Your task to perform on an android device: open chrome and create a bookmark for the current page Image 0: 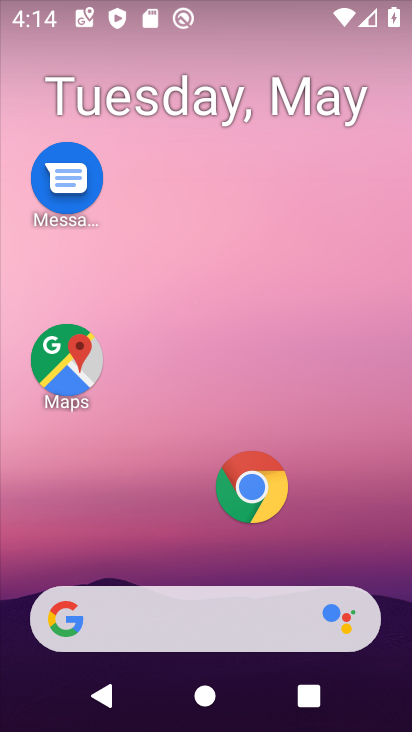
Step 0: click (268, 474)
Your task to perform on an android device: open chrome and create a bookmark for the current page Image 1: 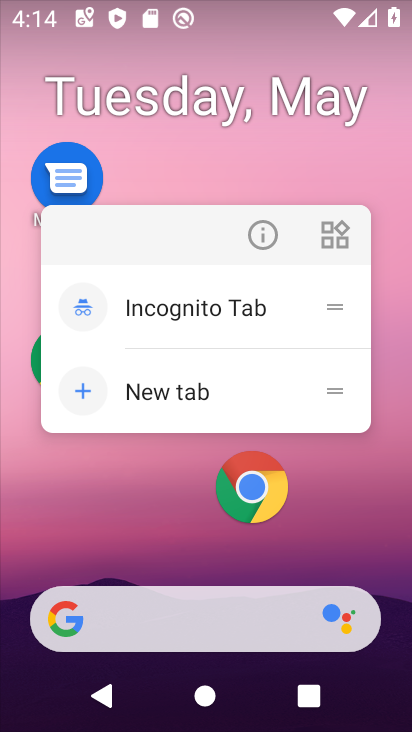
Step 1: click (261, 490)
Your task to perform on an android device: open chrome and create a bookmark for the current page Image 2: 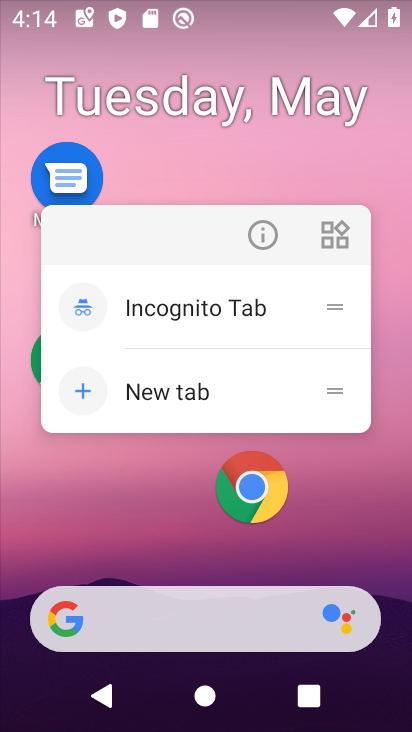
Step 2: click (250, 502)
Your task to perform on an android device: open chrome and create a bookmark for the current page Image 3: 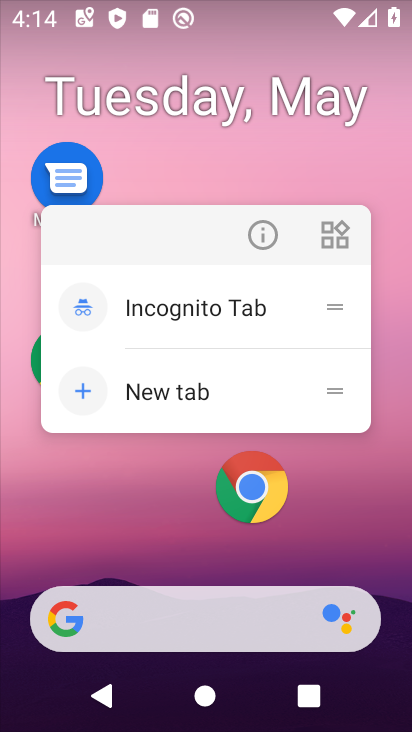
Step 3: click (247, 520)
Your task to perform on an android device: open chrome and create a bookmark for the current page Image 4: 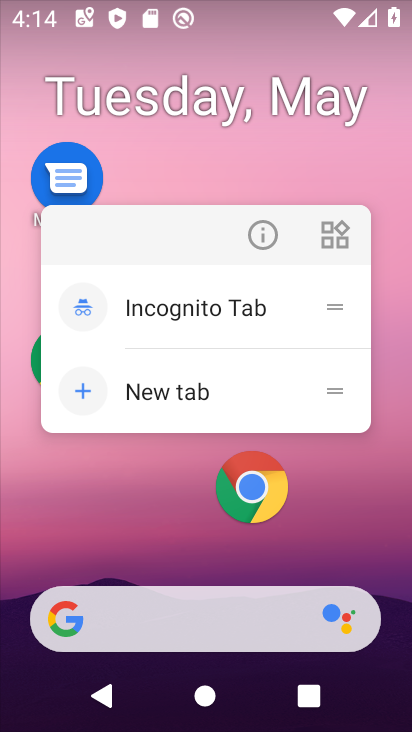
Step 4: click (255, 489)
Your task to perform on an android device: open chrome and create a bookmark for the current page Image 5: 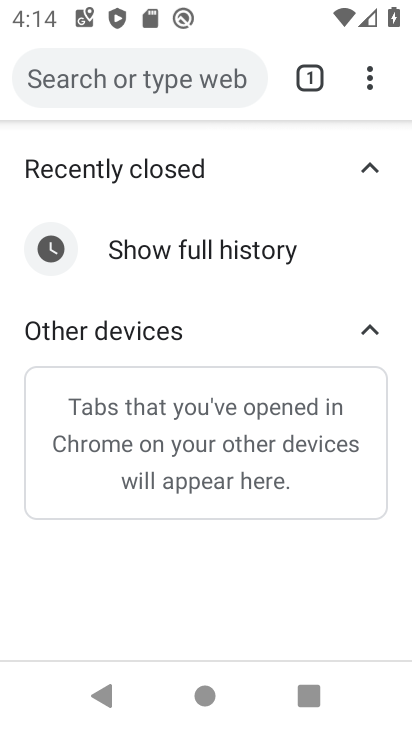
Step 5: click (365, 84)
Your task to perform on an android device: open chrome and create a bookmark for the current page Image 6: 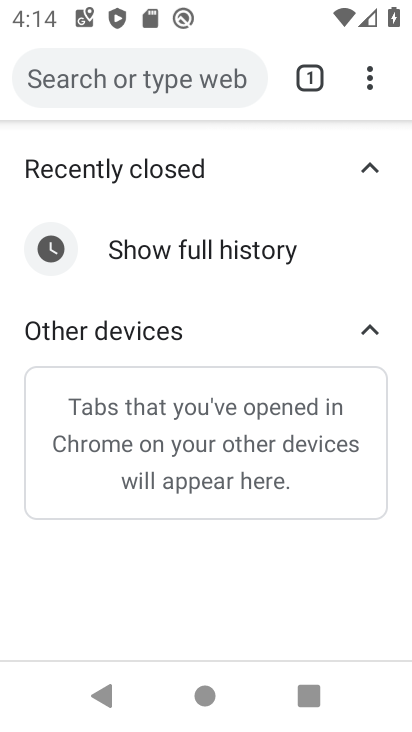
Step 6: click (370, 81)
Your task to perform on an android device: open chrome and create a bookmark for the current page Image 7: 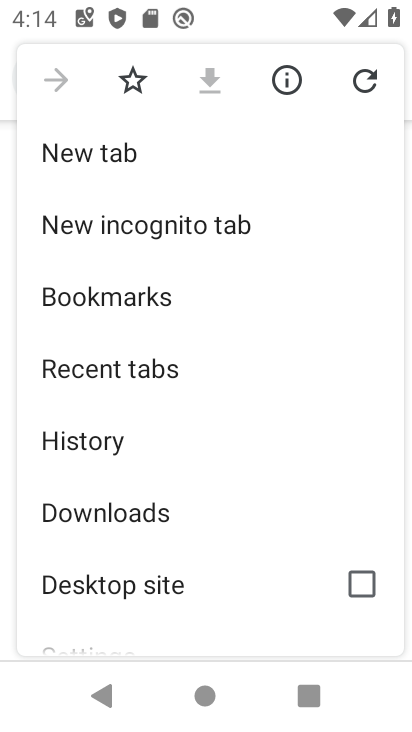
Step 7: click (127, 83)
Your task to perform on an android device: open chrome and create a bookmark for the current page Image 8: 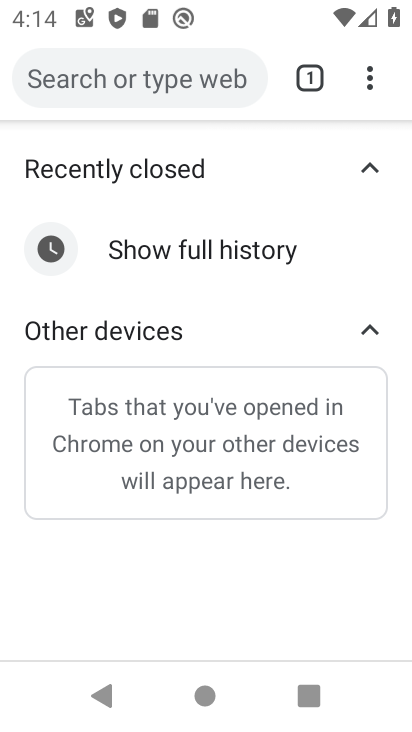
Step 8: task complete